Your task to perform on an android device: refresh tabs in the chrome app Image 0: 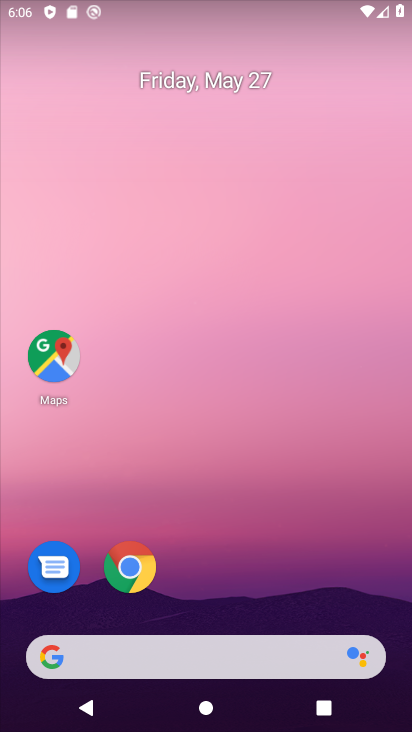
Step 0: click (137, 572)
Your task to perform on an android device: refresh tabs in the chrome app Image 1: 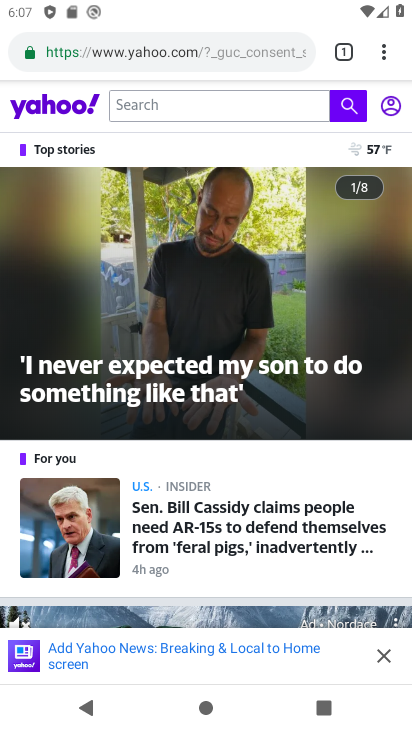
Step 1: click (381, 52)
Your task to perform on an android device: refresh tabs in the chrome app Image 2: 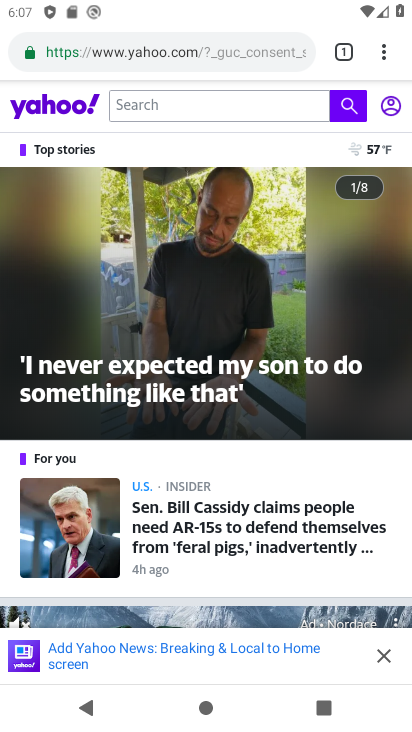
Step 2: click (383, 50)
Your task to perform on an android device: refresh tabs in the chrome app Image 3: 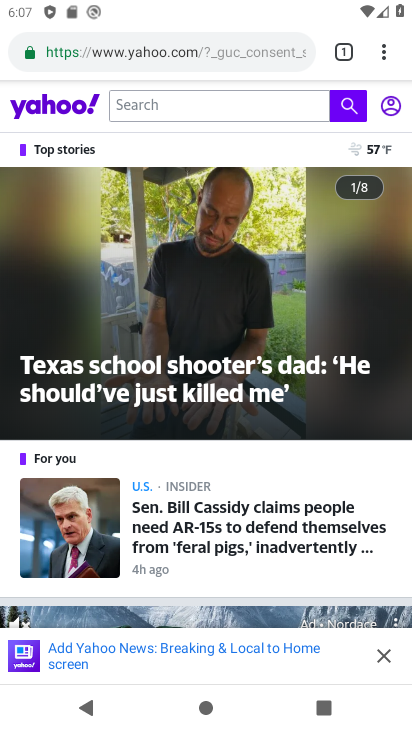
Step 3: click (388, 64)
Your task to perform on an android device: refresh tabs in the chrome app Image 4: 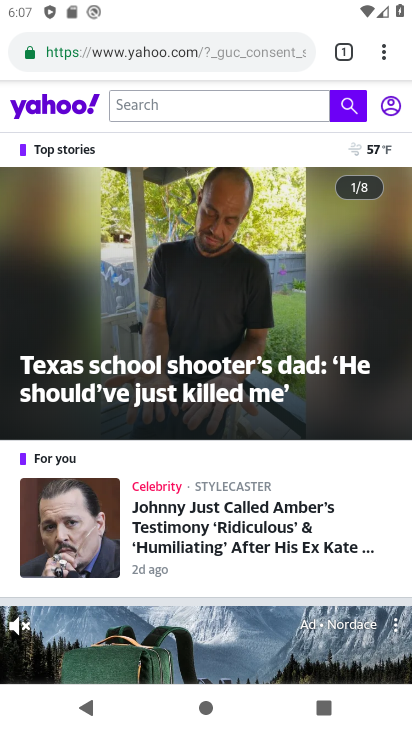
Step 4: click (384, 50)
Your task to perform on an android device: refresh tabs in the chrome app Image 5: 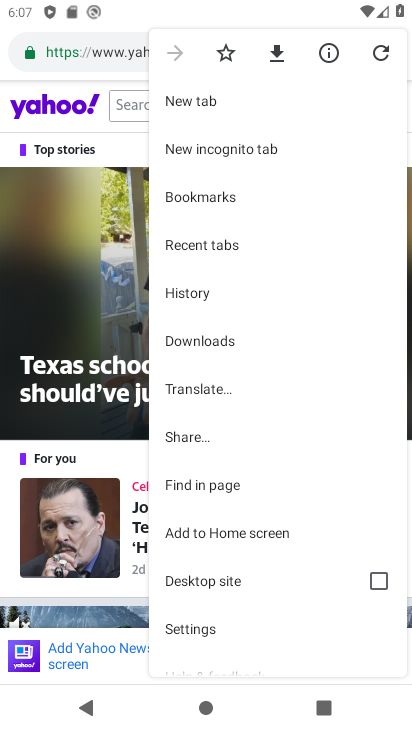
Step 5: click (386, 59)
Your task to perform on an android device: refresh tabs in the chrome app Image 6: 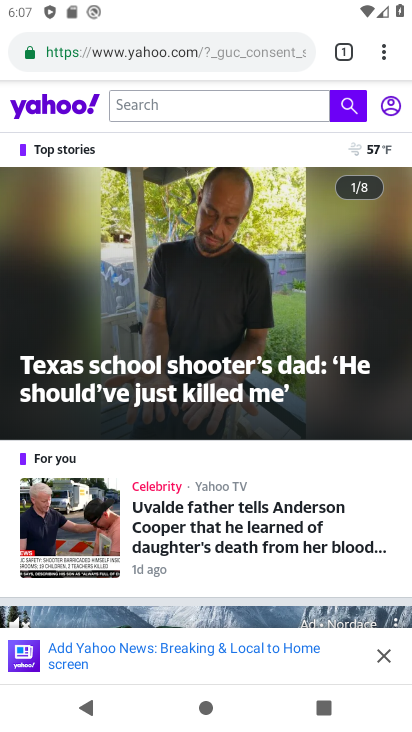
Step 6: task complete